Your task to perform on an android device: What's the weather going to be tomorrow? Image 0: 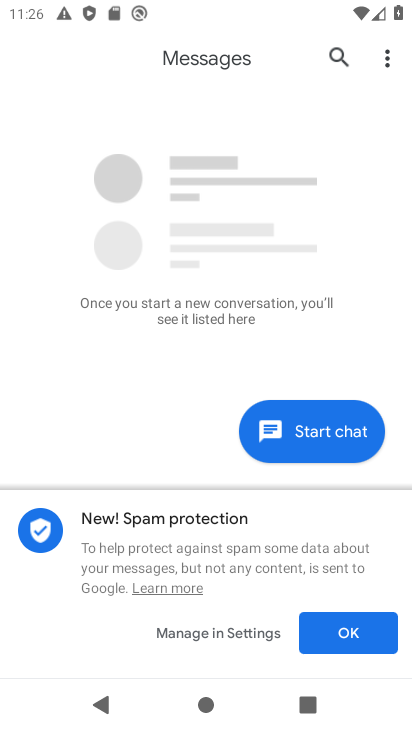
Step 0: press back button
Your task to perform on an android device: What's the weather going to be tomorrow? Image 1: 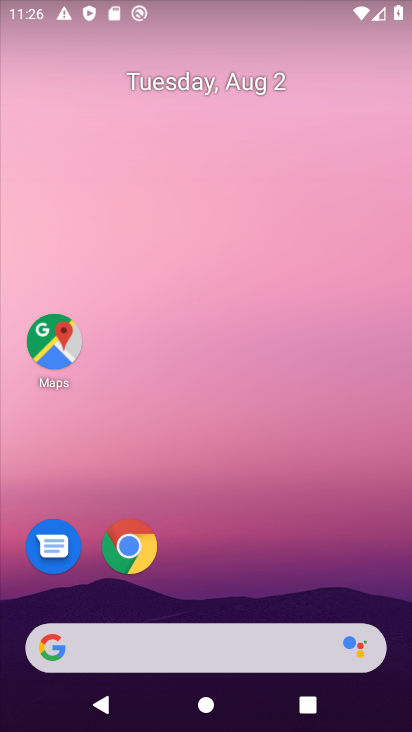
Step 1: drag from (230, 572) to (172, 42)
Your task to perform on an android device: What's the weather going to be tomorrow? Image 2: 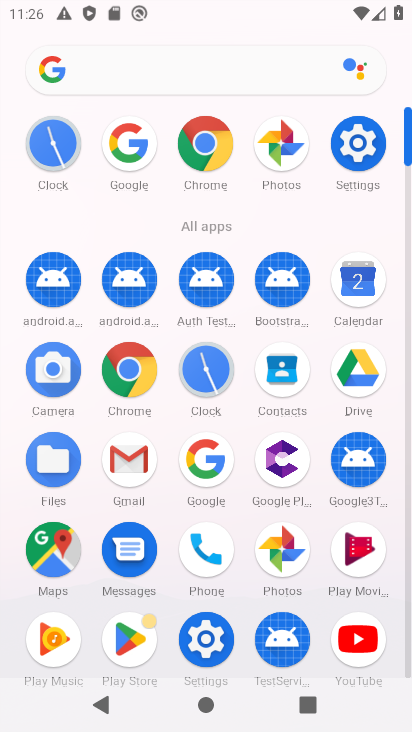
Step 2: click (138, 185)
Your task to perform on an android device: What's the weather going to be tomorrow? Image 3: 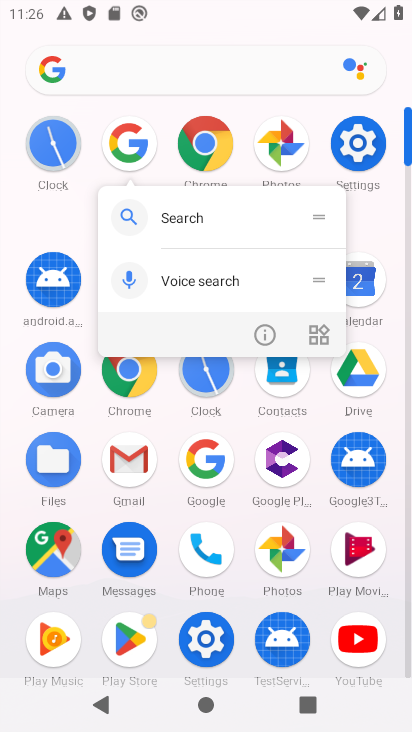
Step 3: click (135, 135)
Your task to perform on an android device: What's the weather going to be tomorrow? Image 4: 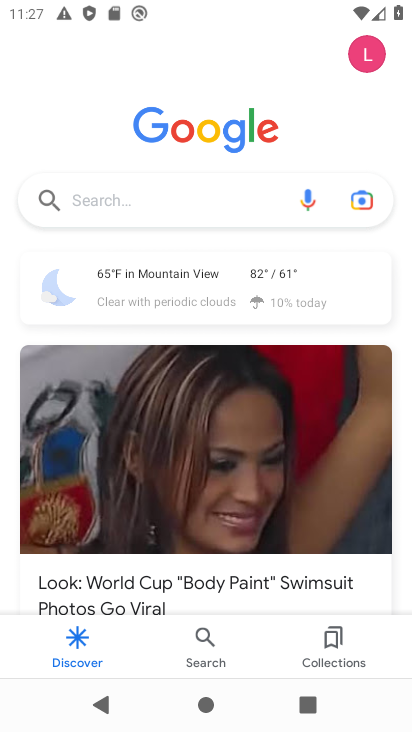
Step 4: click (140, 282)
Your task to perform on an android device: What's the weather going to be tomorrow? Image 5: 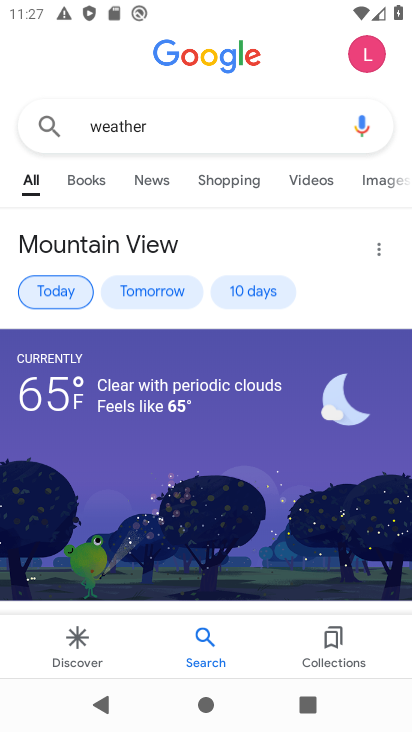
Step 5: click (140, 282)
Your task to perform on an android device: What's the weather going to be tomorrow? Image 6: 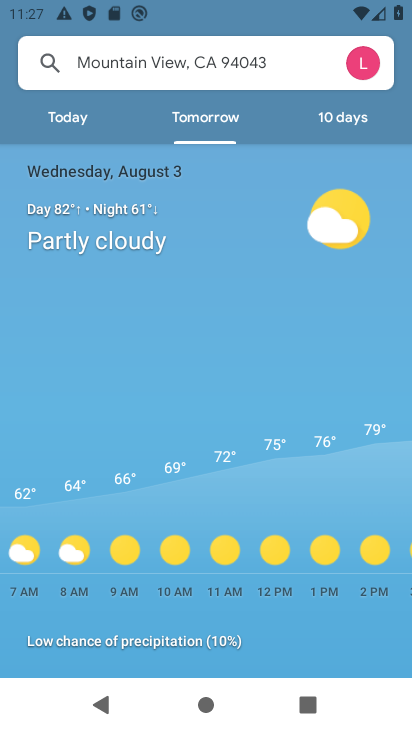
Step 6: task complete